Your task to perform on an android device: Open the phone app and click the voicemail tab. Image 0: 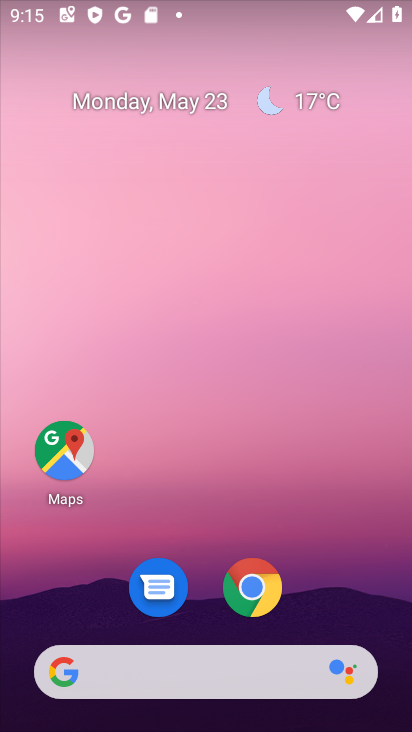
Step 0: drag from (203, 465) to (258, 44)
Your task to perform on an android device: Open the phone app and click the voicemail tab. Image 1: 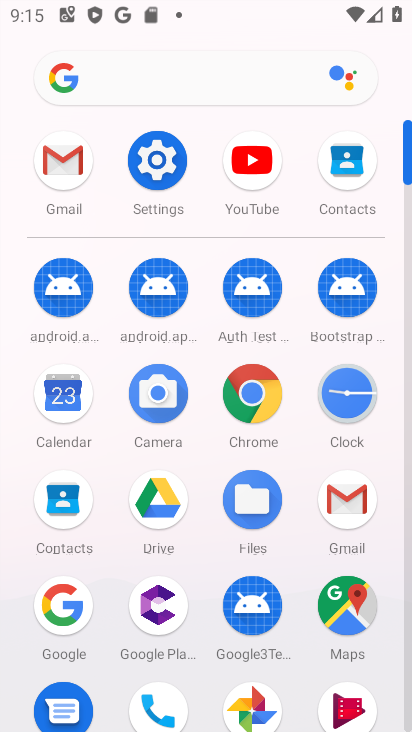
Step 1: click (161, 703)
Your task to perform on an android device: Open the phone app and click the voicemail tab. Image 2: 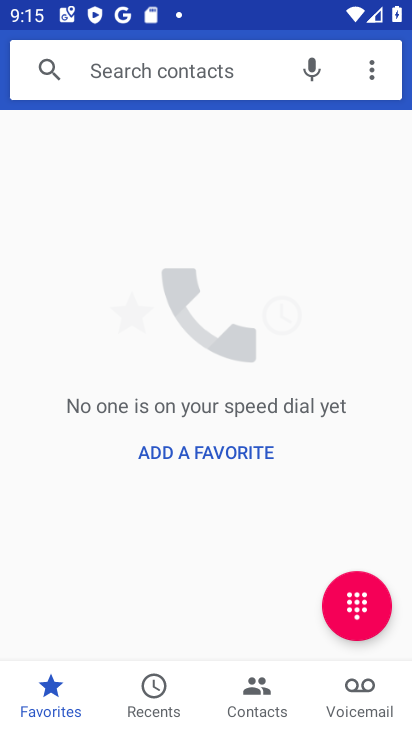
Step 2: click (357, 696)
Your task to perform on an android device: Open the phone app and click the voicemail tab. Image 3: 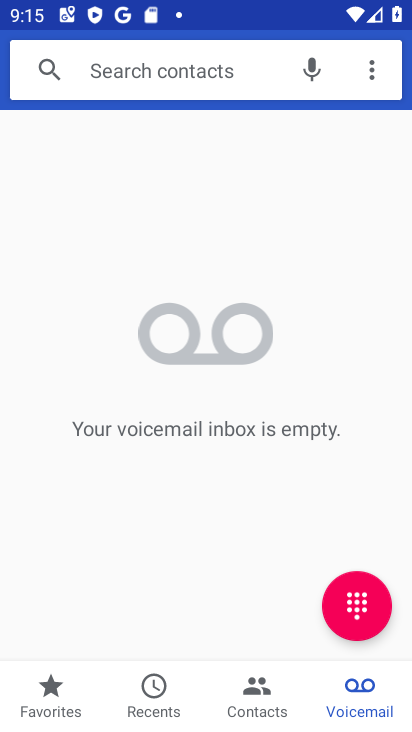
Step 3: task complete